Your task to perform on an android device: turn vacation reply on in the gmail app Image 0: 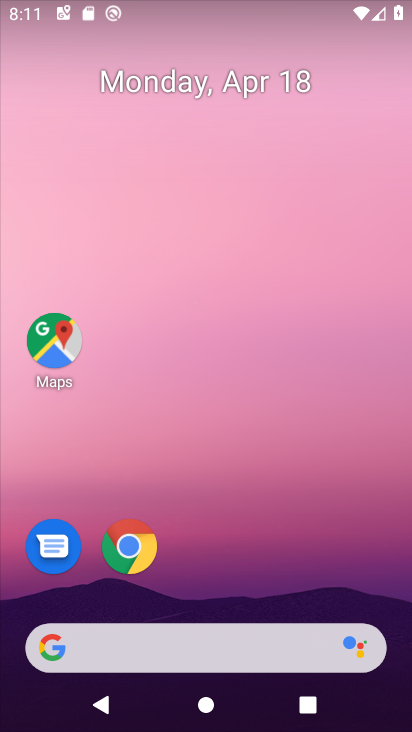
Step 0: drag from (381, 556) to (328, 72)
Your task to perform on an android device: turn vacation reply on in the gmail app Image 1: 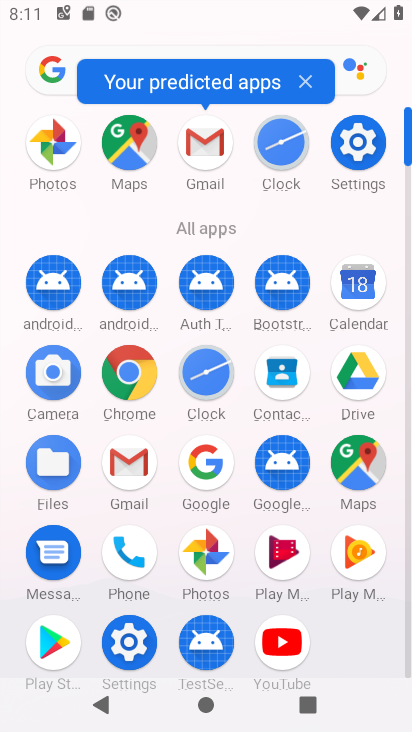
Step 1: click (208, 135)
Your task to perform on an android device: turn vacation reply on in the gmail app Image 2: 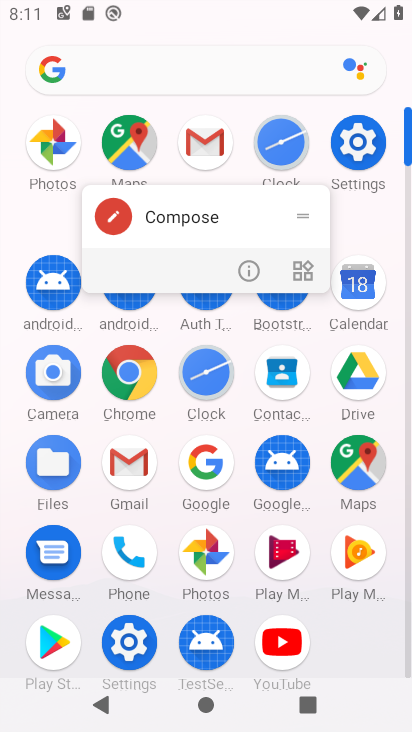
Step 2: click (208, 135)
Your task to perform on an android device: turn vacation reply on in the gmail app Image 3: 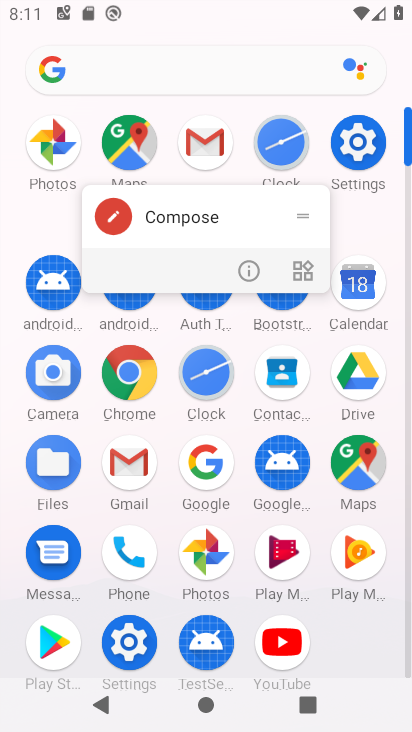
Step 3: click (208, 144)
Your task to perform on an android device: turn vacation reply on in the gmail app Image 4: 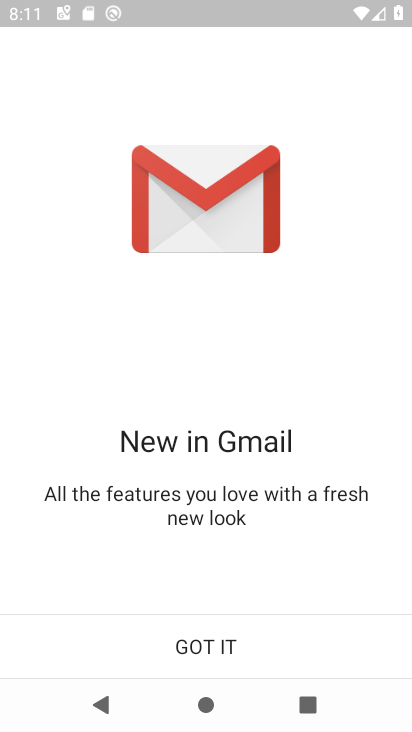
Step 4: click (198, 641)
Your task to perform on an android device: turn vacation reply on in the gmail app Image 5: 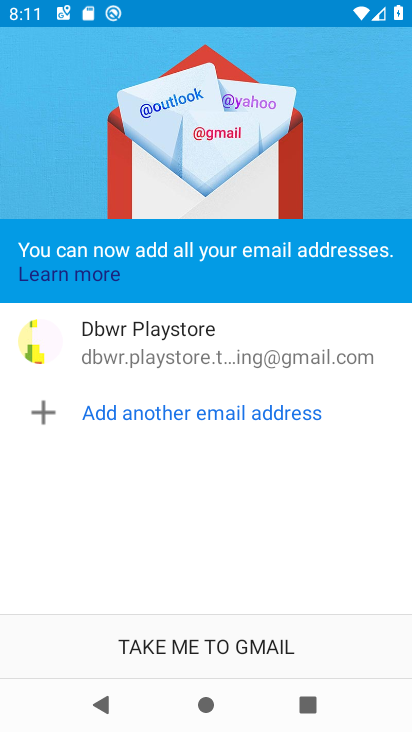
Step 5: click (198, 641)
Your task to perform on an android device: turn vacation reply on in the gmail app Image 6: 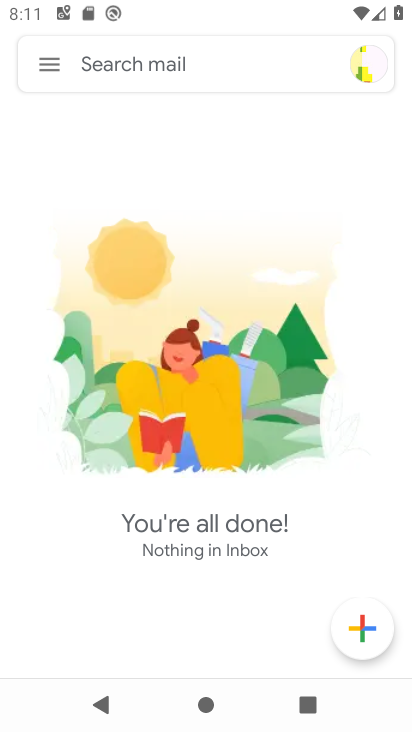
Step 6: click (39, 66)
Your task to perform on an android device: turn vacation reply on in the gmail app Image 7: 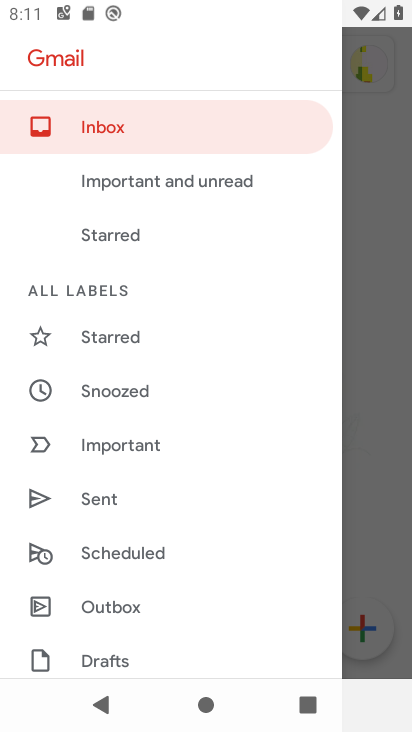
Step 7: drag from (300, 637) to (298, 214)
Your task to perform on an android device: turn vacation reply on in the gmail app Image 8: 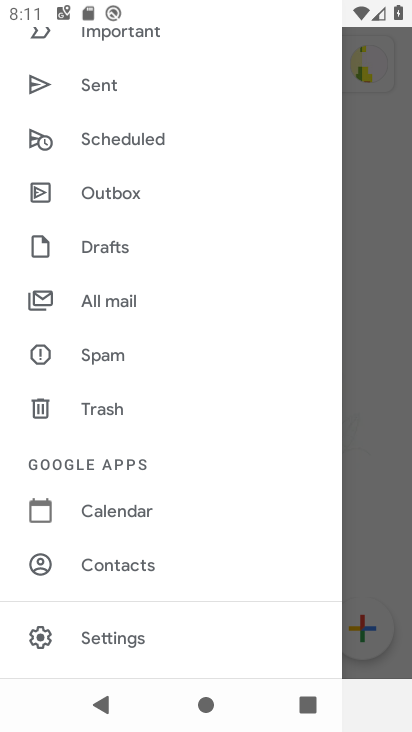
Step 8: drag from (296, 367) to (293, 142)
Your task to perform on an android device: turn vacation reply on in the gmail app Image 9: 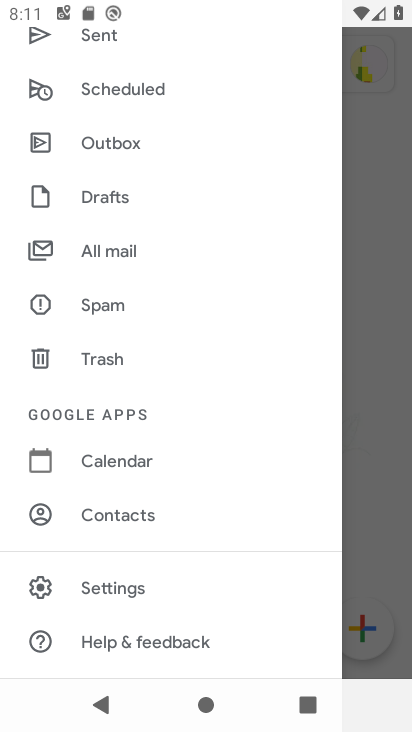
Step 9: click (188, 587)
Your task to perform on an android device: turn vacation reply on in the gmail app Image 10: 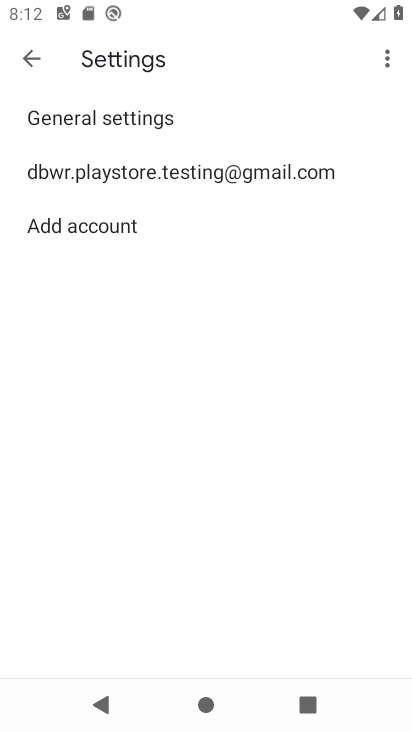
Step 10: click (285, 198)
Your task to perform on an android device: turn vacation reply on in the gmail app Image 11: 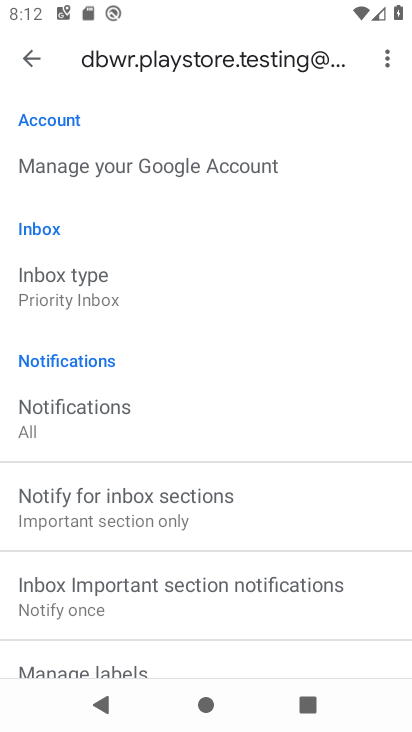
Step 11: drag from (305, 640) to (270, 137)
Your task to perform on an android device: turn vacation reply on in the gmail app Image 12: 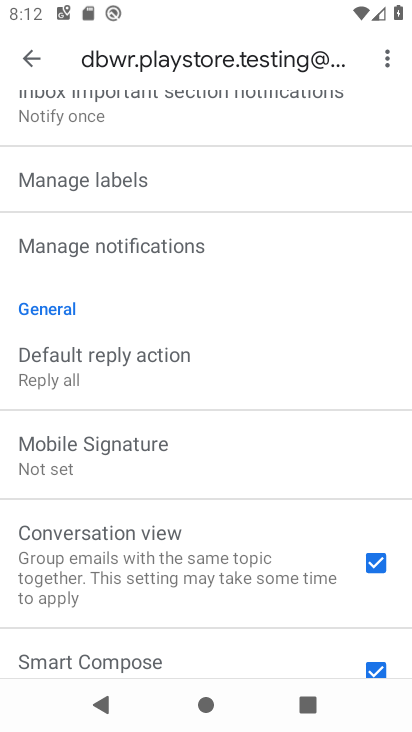
Step 12: drag from (303, 463) to (291, 170)
Your task to perform on an android device: turn vacation reply on in the gmail app Image 13: 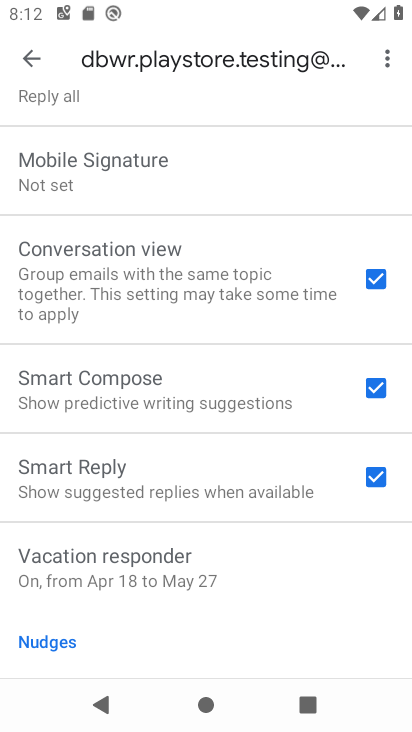
Step 13: click (302, 563)
Your task to perform on an android device: turn vacation reply on in the gmail app Image 14: 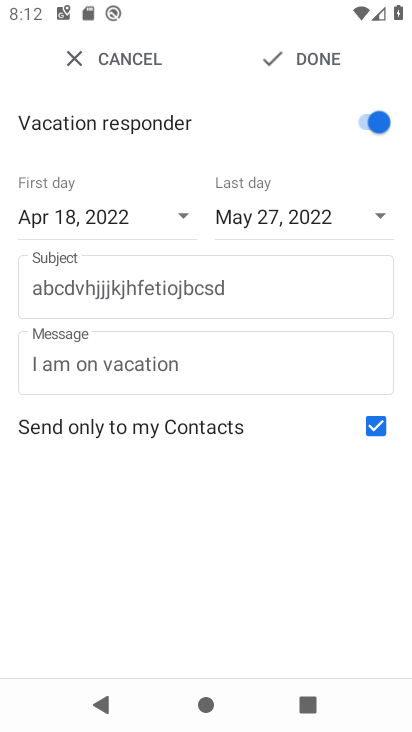
Step 14: click (373, 116)
Your task to perform on an android device: turn vacation reply on in the gmail app Image 15: 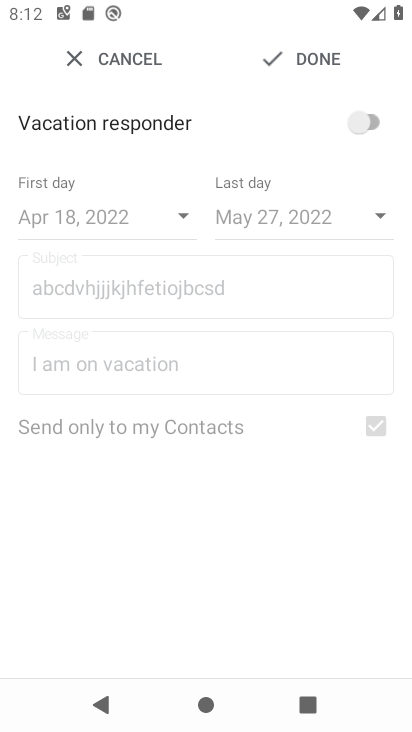
Step 15: click (373, 116)
Your task to perform on an android device: turn vacation reply on in the gmail app Image 16: 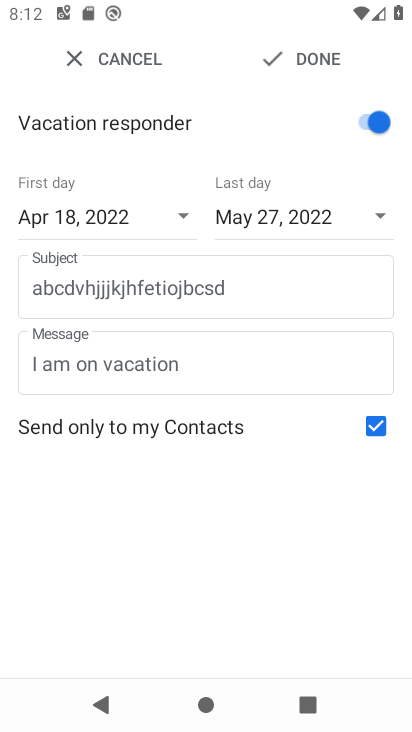
Step 16: click (318, 68)
Your task to perform on an android device: turn vacation reply on in the gmail app Image 17: 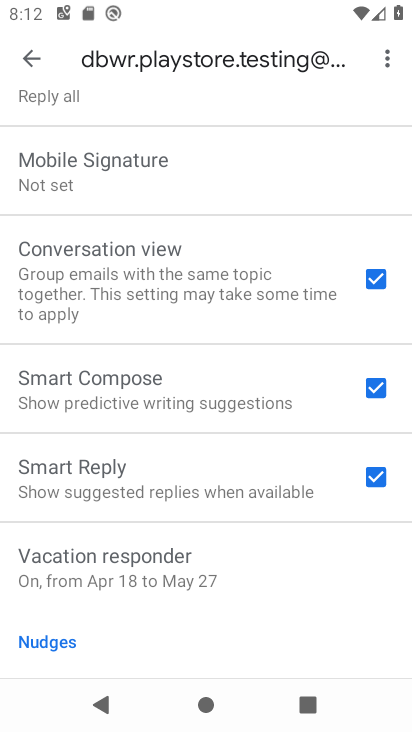
Step 17: task complete